Your task to perform on an android device: open app "Nova Launcher" Image 0: 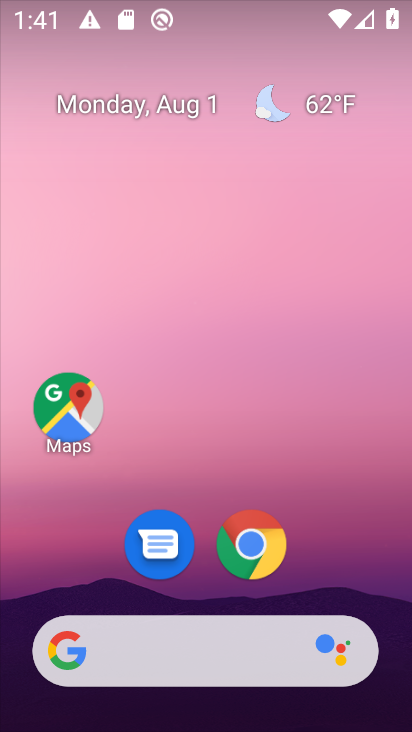
Step 0: drag from (364, 587) to (145, 27)
Your task to perform on an android device: open app "Nova Launcher" Image 1: 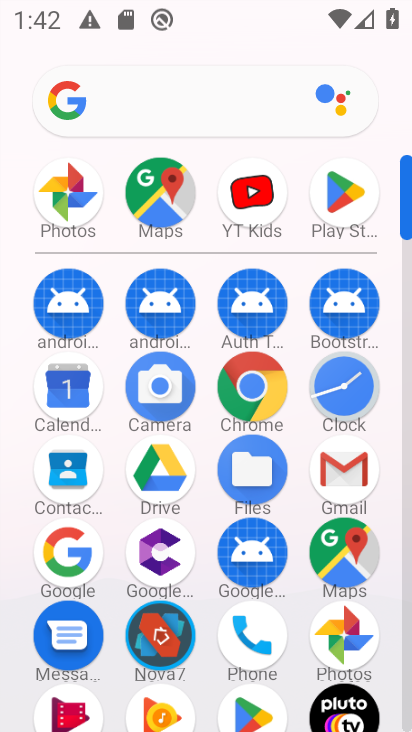
Step 1: click (334, 204)
Your task to perform on an android device: open app "Nova Launcher" Image 2: 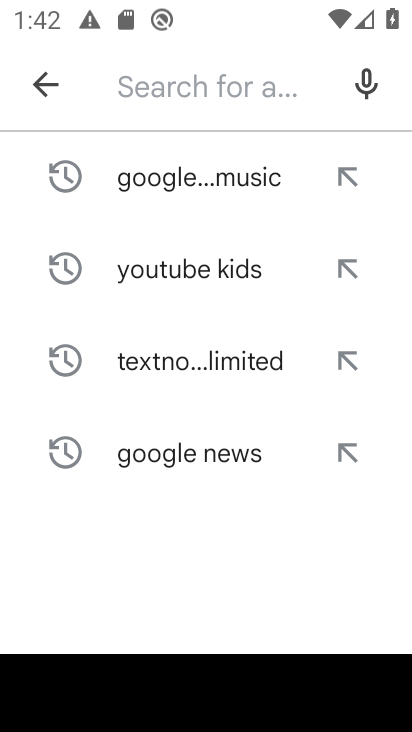
Step 2: type "Nova Launcher"
Your task to perform on an android device: open app "Nova Launcher" Image 3: 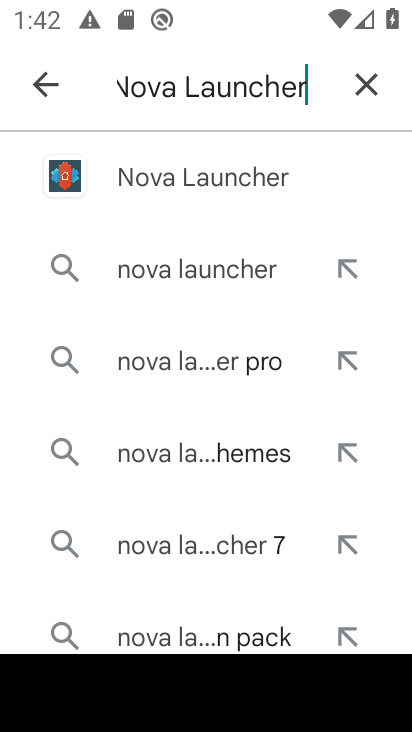
Step 3: click (216, 175)
Your task to perform on an android device: open app "Nova Launcher" Image 4: 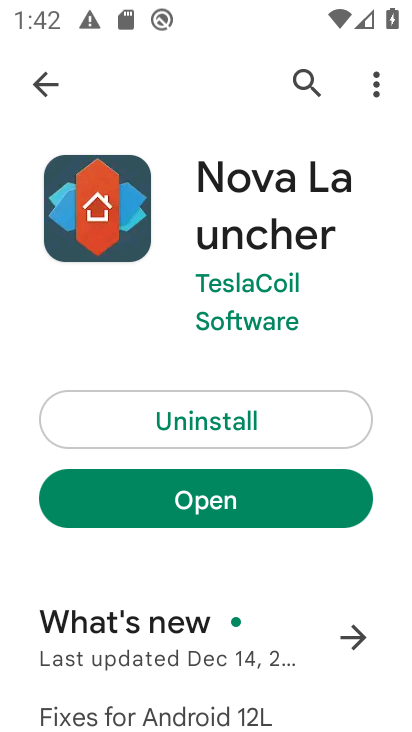
Step 4: click (201, 502)
Your task to perform on an android device: open app "Nova Launcher" Image 5: 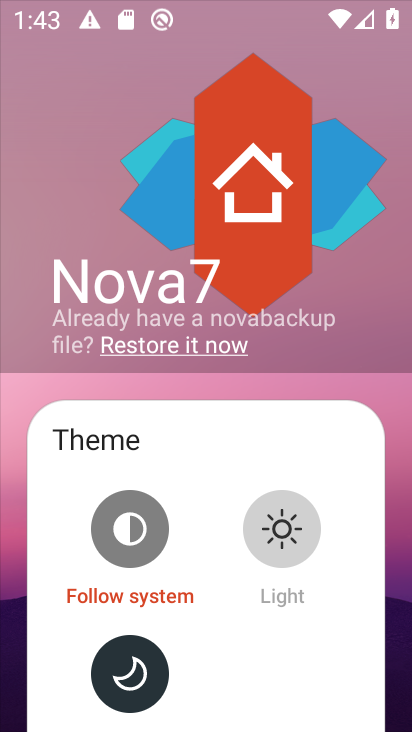
Step 5: task complete